Your task to perform on an android device: toggle airplane mode Image 0: 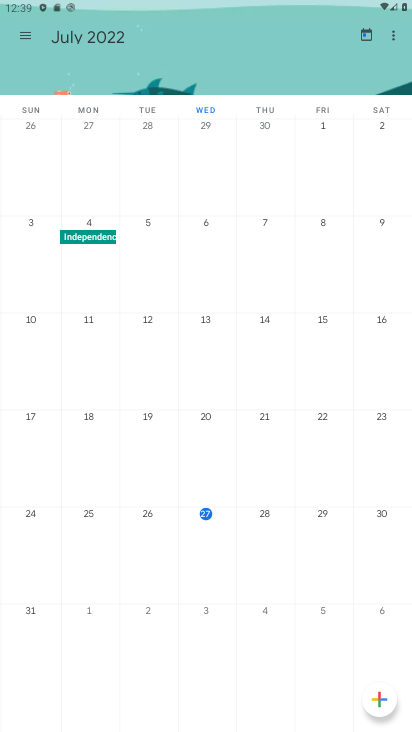
Step 0: press home button
Your task to perform on an android device: toggle airplane mode Image 1: 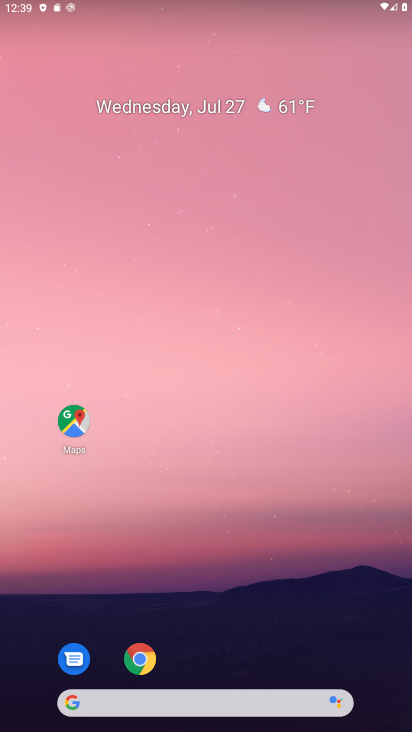
Step 1: drag from (216, 645) to (217, 100)
Your task to perform on an android device: toggle airplane mode Image 2: 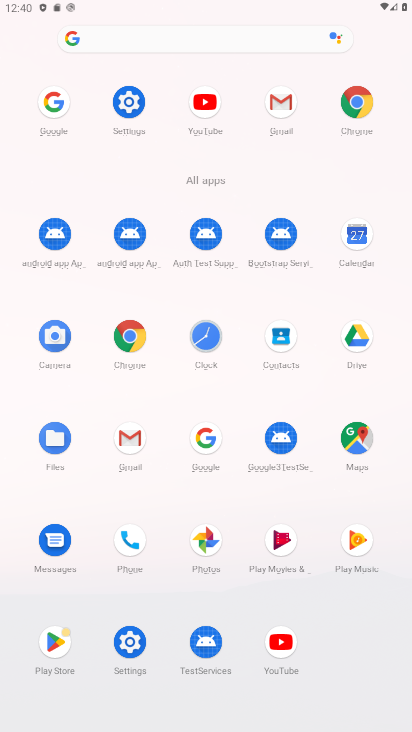
Step 2: click (123, 106)
Your task to perform on an android device: toggle airplane mode Image 3: 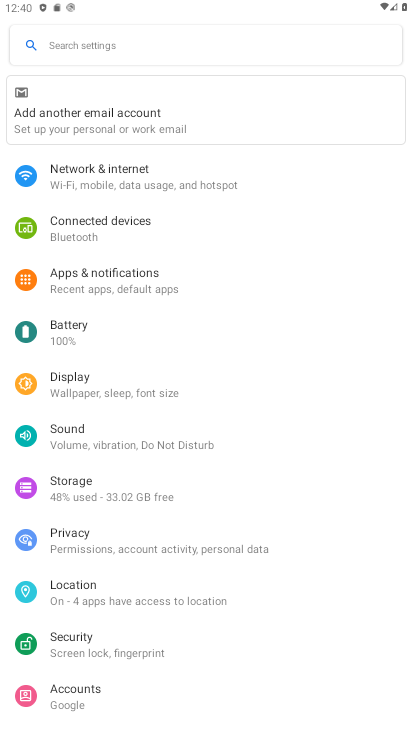
Step 3: click (137, 161)
Your task to perform on an android device: toggle airplane mode Image 4: 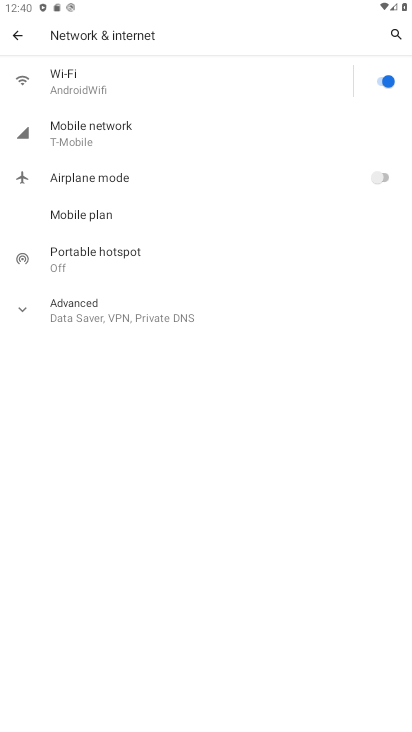
Step 4: click (378, 178)
Your task to perform on an android device: toggle airplane mode Image 5: 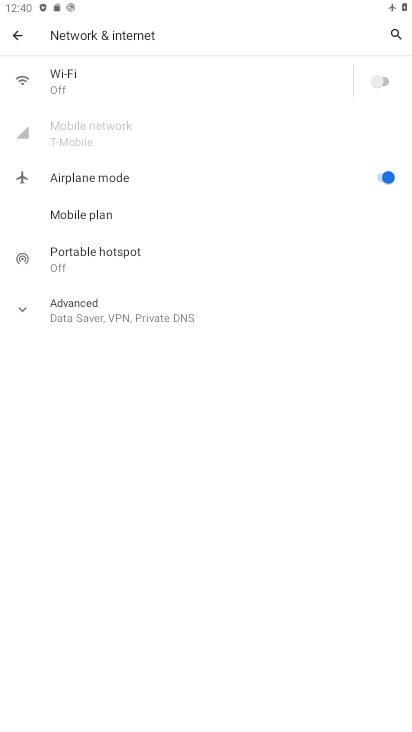
Step 5: task complete